Your task to perform on an android device: Open Yahoo.com Image 0: 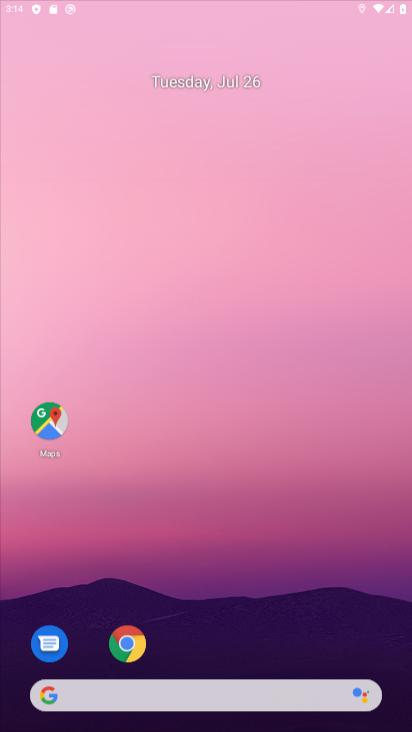
Step 0: drag from (184, 651) to (222, 215)
Your task to perform on an android device: Open Yahoo.com Image 1: 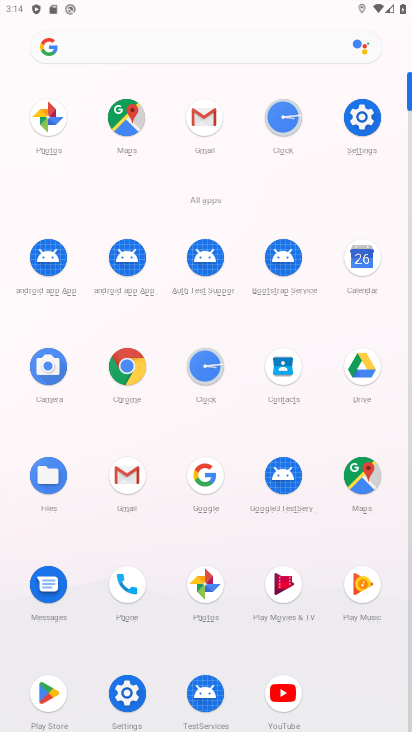
Step 1: click (125, 368)
Your task to perform on an android device: Open Yahoo.com Image 2: 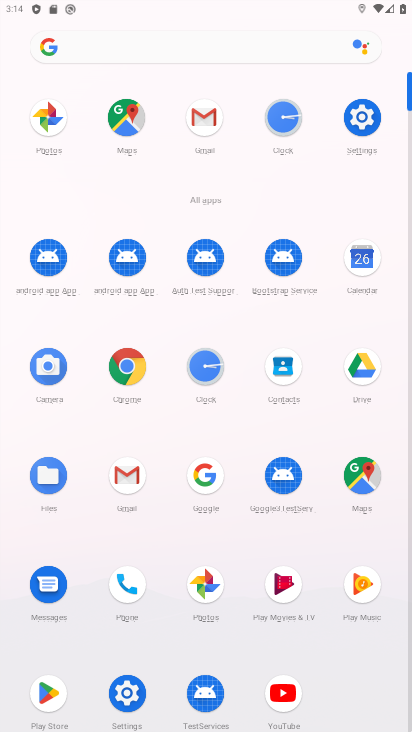
Step 2: click (125, 368)
Your task to perform on an android device: Open Yahoo.com Image 3: 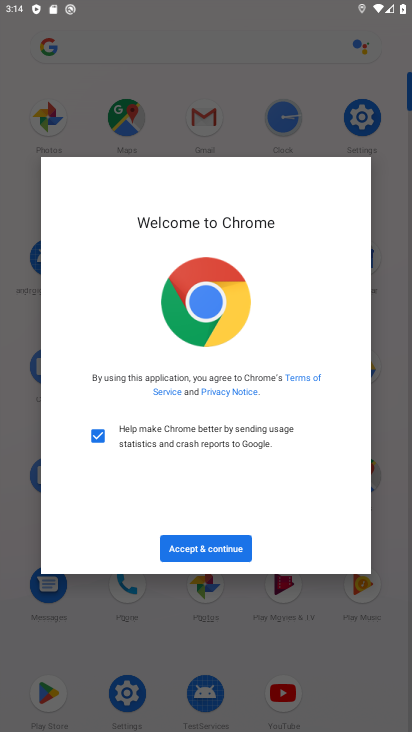
Step 3: click (224, 555)
Your task to perform on an android device: Open Yahoo.com Image 4: 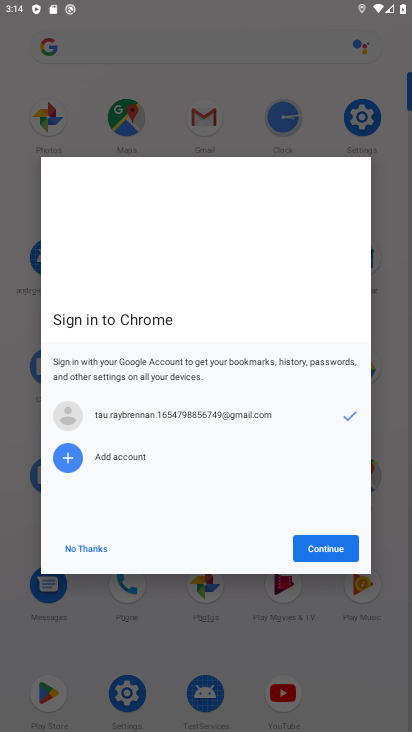
Step 4: click (308, 547)
Your task to perform on an android device: Open Yahoo.com Image 5: 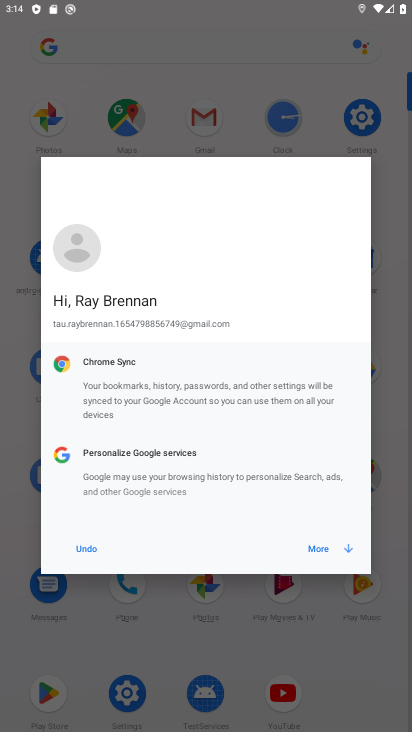
Step 5: click (332, 543)
Your task to perform on an android device: Open Yahoo.com Image 6: 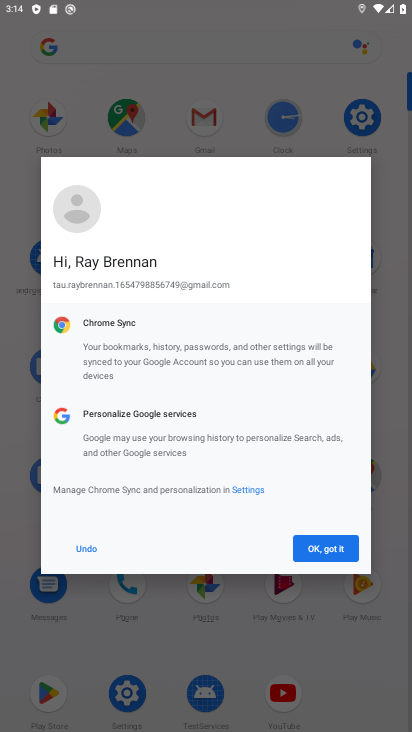
Step 6: click (306, 578)
Your task to perform on an android device: Open Yahoo.com Image 7: 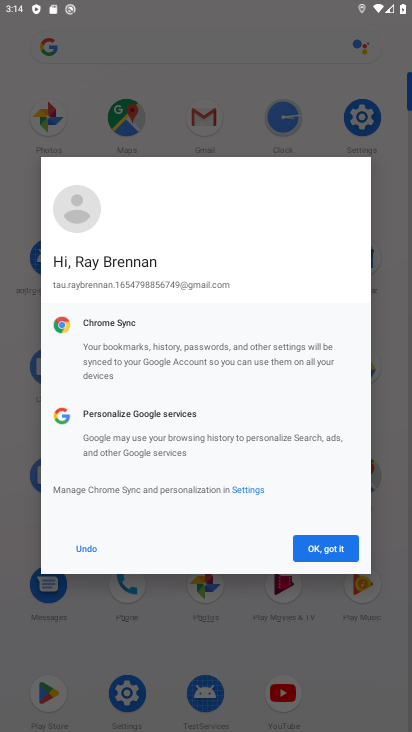
Step 7: click (319, 566)
Your task to perform on an android device: Open Yahoo.com Image 8: 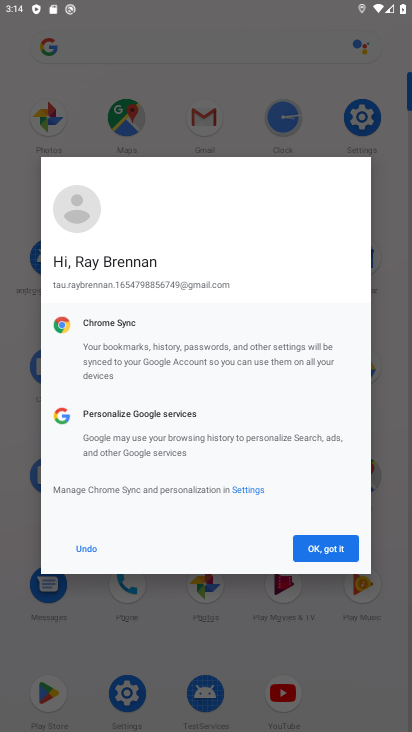
Step 8: click (319, 566)
Your task to perform on an android device: Open Yahoo.com Image 9: 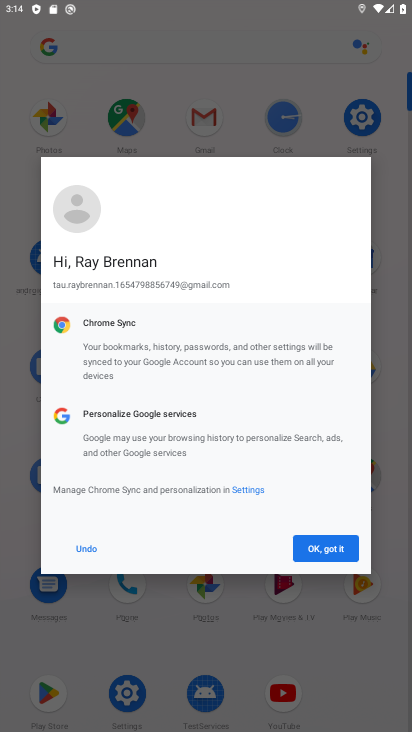
Step 9: click (314, 552)
Your task to perform on an android device: Open Yahoo.com Image 10: 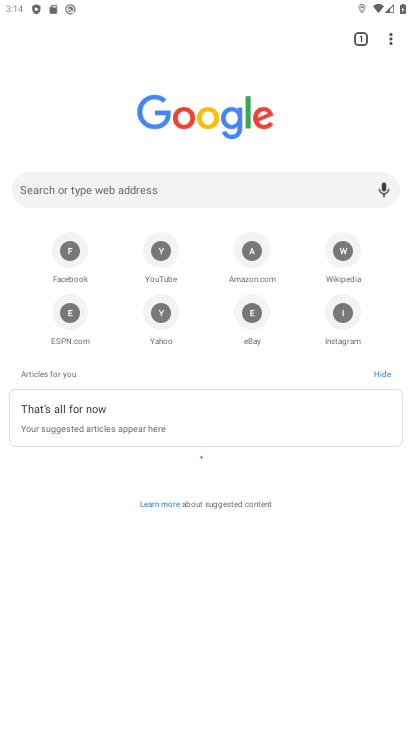
Step 10: click (86, 182)
Your task to perform on an android device: Open Yahoo.com Image 11: 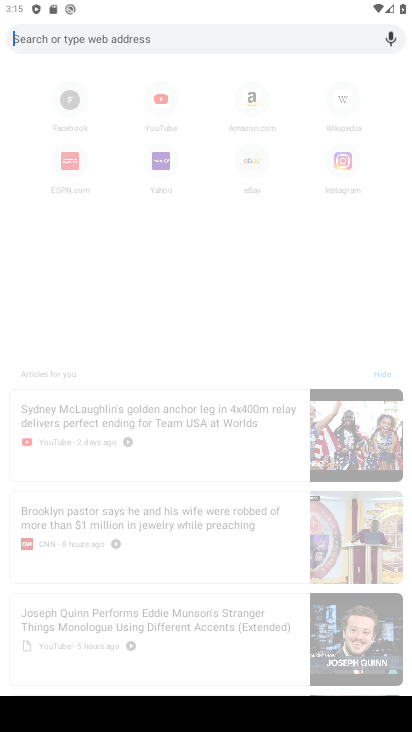
Step 11: type "Yahoo.com"
Your task to perform on an android device: Open Yahoo.com Image 12: 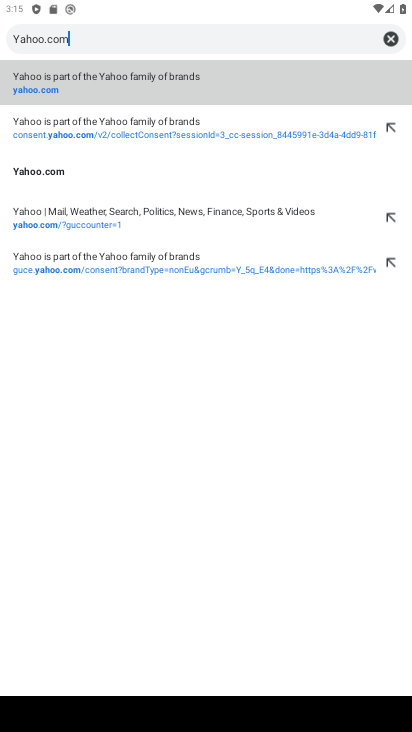
Step 12: type ""
Your task to perform on an android device: Open Yahoo.com Image 13: 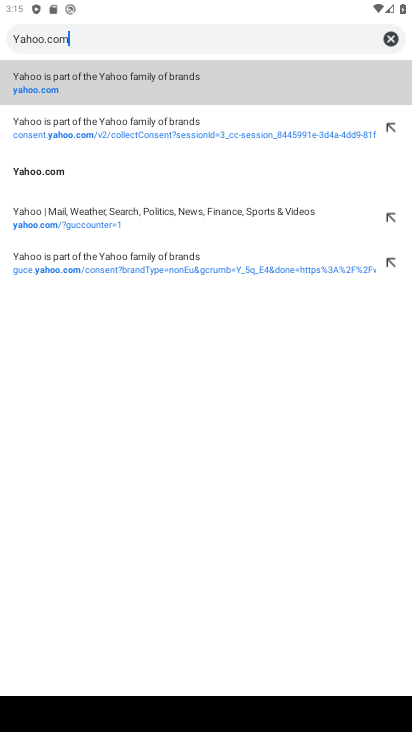
Step 13: click (43, 90)
Your task to perform on an android device: Open Yahoo.com Image 14: 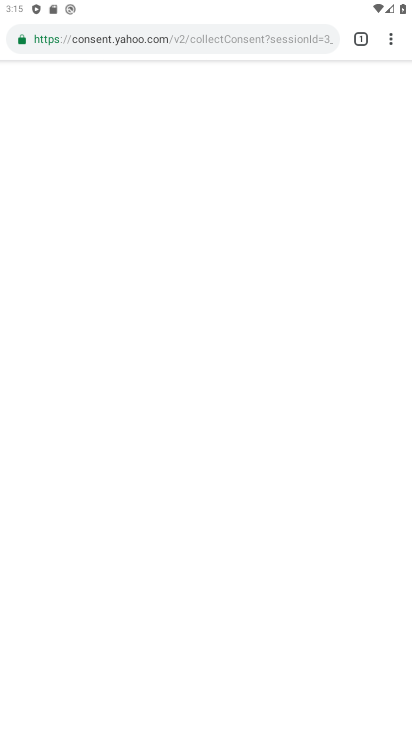
Step 14: task complete